Your task to perform on an android device: empty trash in the gmail app Image 0: 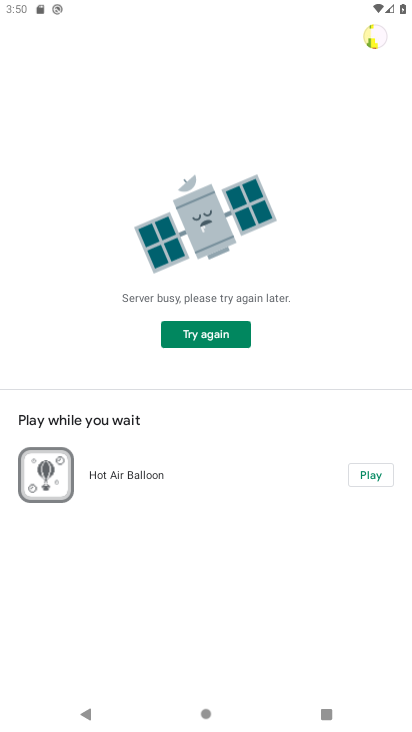
Step 0: press home button
Your task to perform on an android device: empty trash in the gmail app Image 1: 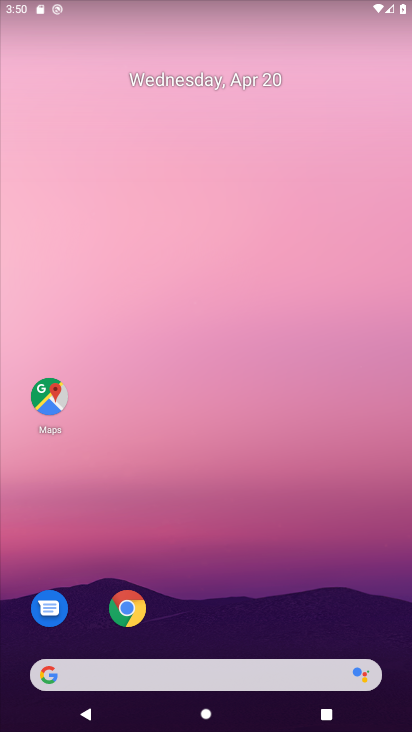
Step 1: drag from (217, 700) to (214, 19)
Your task to perform on an android device: empty trash in the gmail app Image 2: 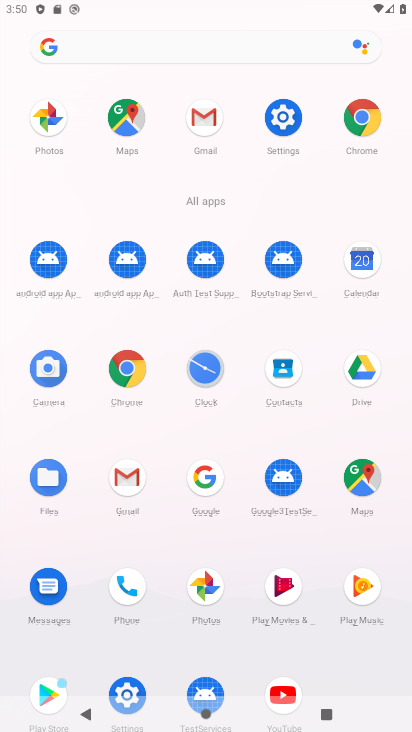
Step 2: click (206, 137)
Your task to perform on an android device: empty trash in the gmail app Image 3: 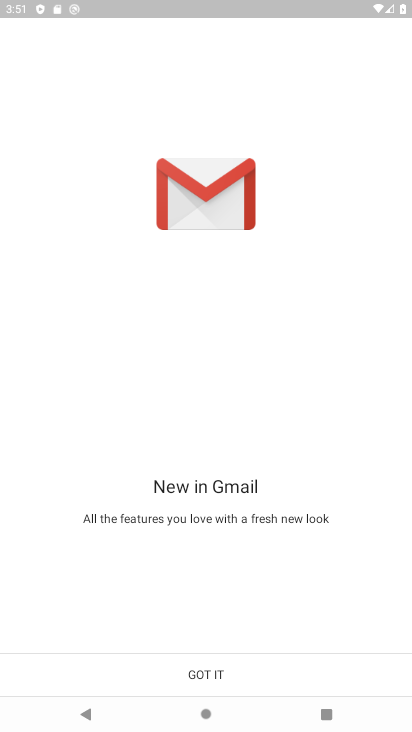
Step 3: click (213, 685)
Your task to perform on an android device: empty trash in the gmail app Image 4: 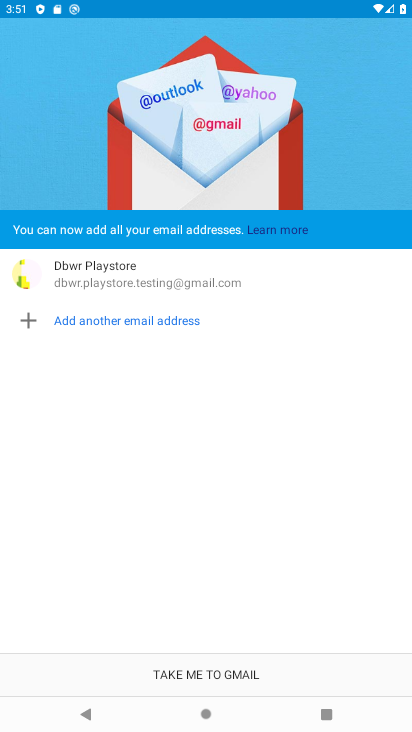
Step 4: click (214, 677)
Your task to perform on an android device: empty trash in the gmail app Image 5: 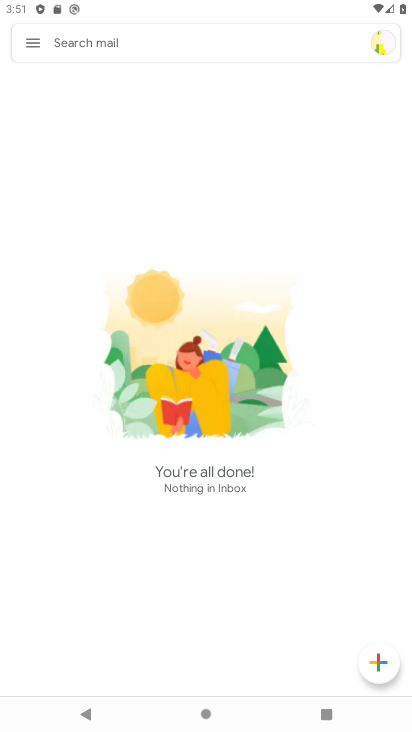
Step 5: click (29, 46)
Your task to perform on an android device: empty trash in the gmail app Image 6: 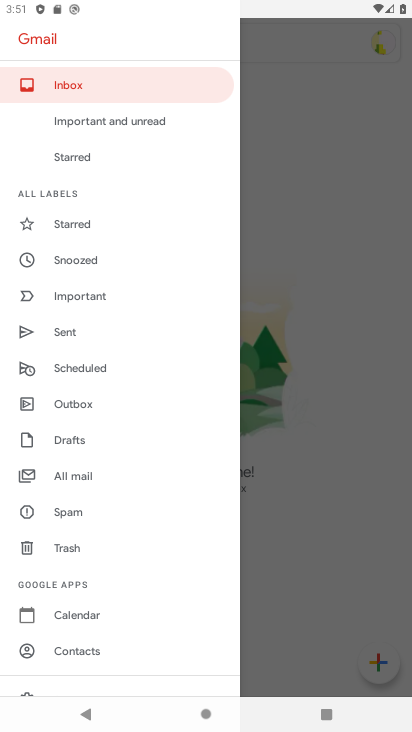
Step 6: click (74, 557)
Your task to perform on an android device: empty trash in the gmail app Image 7: 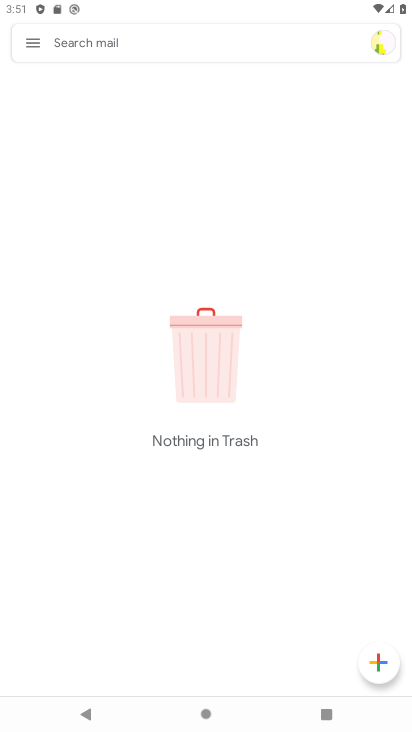
Step 7: task complete